Your task to perform on an android device: toggle airplane mode Image 0: 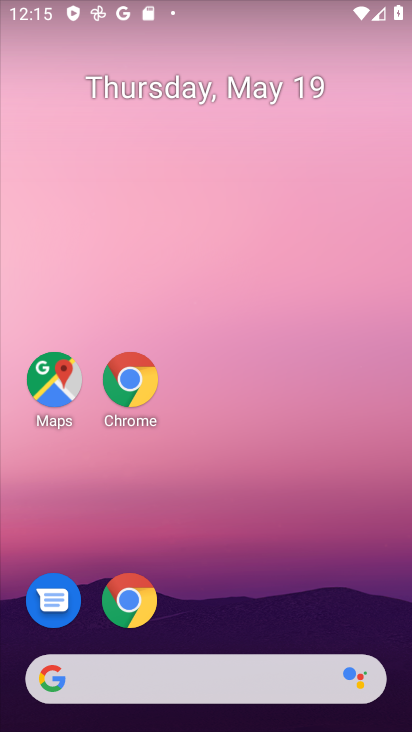
Step 0: drag from (300, 644) to (166, 5)
Your task to perform on an android device: toggle airplane mode Image 1: 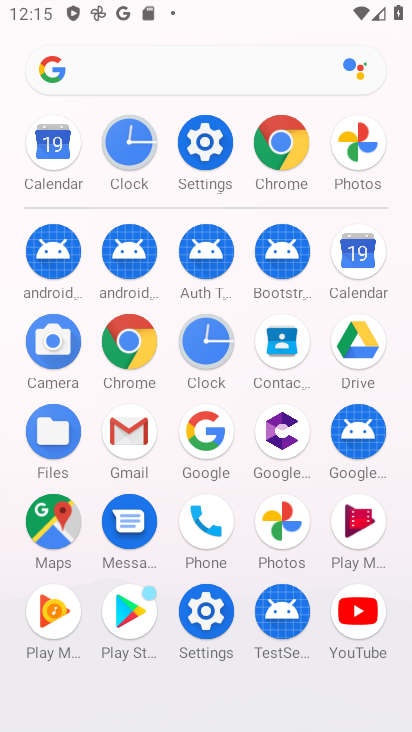
Step 1: click (203, 131)
Your task to perform on an android device: toggle airplane mode Image 2: 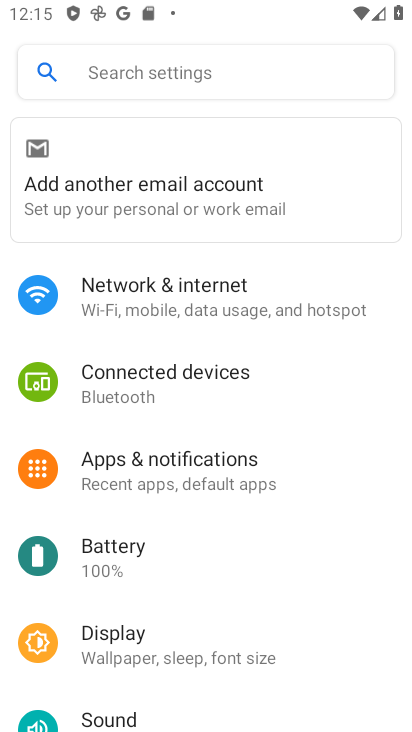
Step 2: click (175, 305)
Your task to perform on an android device: toggle airplane mode Image 3: 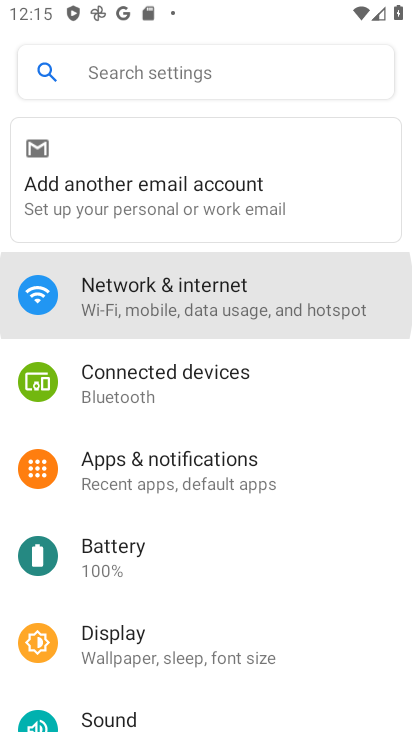
Step 3: click (174, 304)
Your task to perform on an android device: toggle airplane mode Image 4: 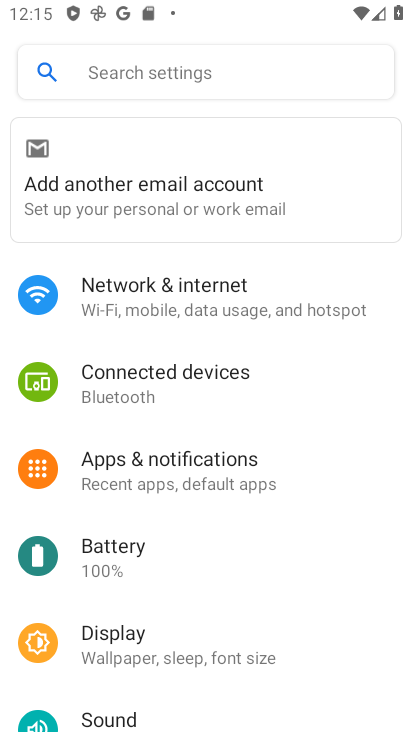
Step 4: click (174, 304)
Your task to perform on an android device: toggle airplane mode Image 5: 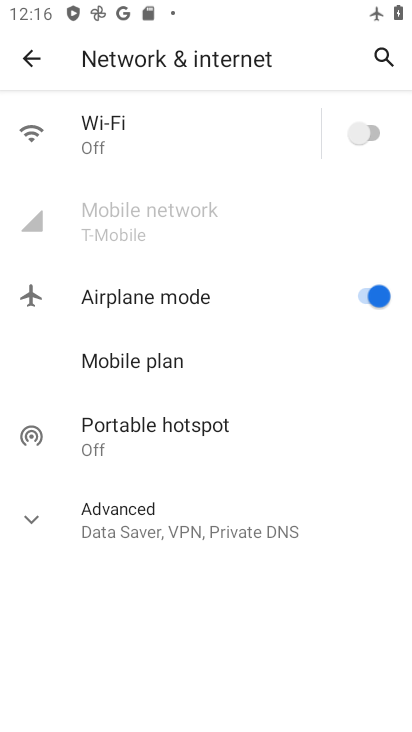
Step 5: click (376, 292)
Your task to perform on an android device: toggle airplane mode Image 6: 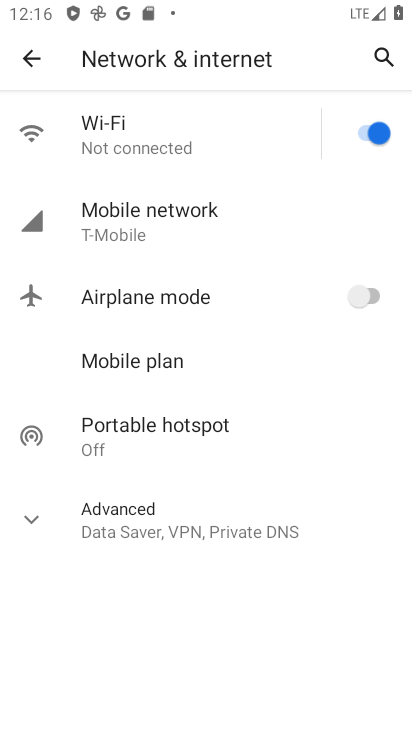
Step 6: task complete